Your task to perform on an android device: Open internet settings Image 0: 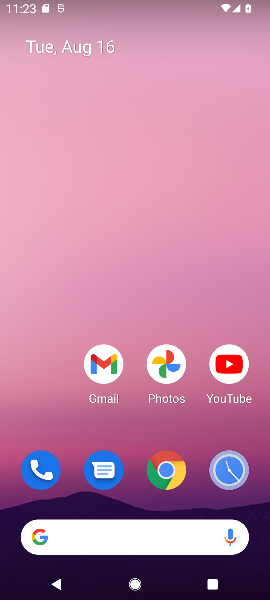
Step 0: drag from (56, 394) to (84, 22)
Your task to perform on an android device: Open internet settings Image 1: 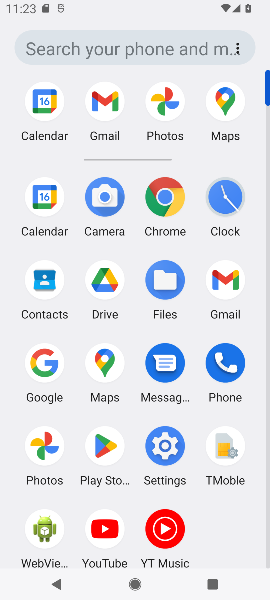
Step 1: click (162, 445)
Your task to perform on an android device: Open internet settings Image 2: 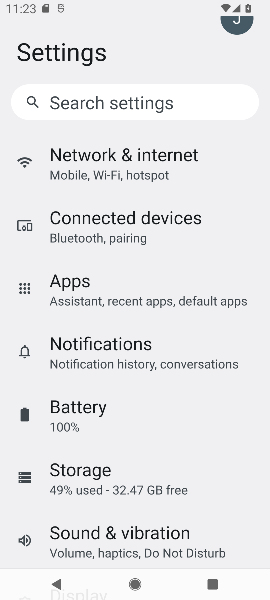
Step 2: click (160, 162)
Your task to perform on an android device: Open internet settings Image 3: 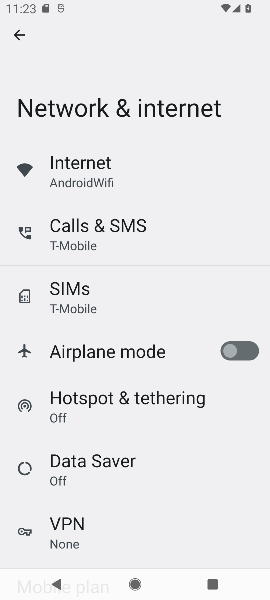
Step 3: click (105, 168)
Your task to perform on an android device: Open internet settings Image 4: 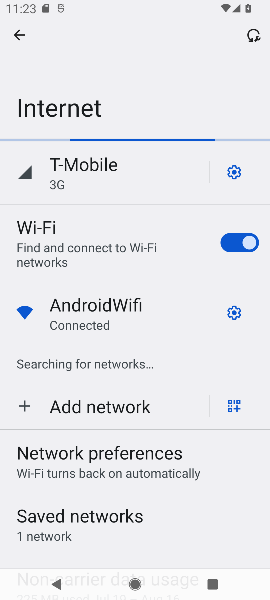
Step 4: task complete